Your task to perform on an android device: turn off javascript in the chrome app Image 0: 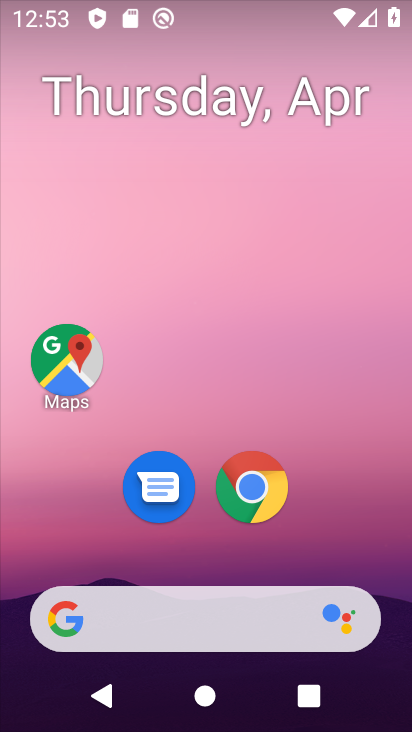
Step 0: drag from (338, 498) to (354, 133)
Your task to perform on an android device: turn off javascript in the chrome app Image 1: 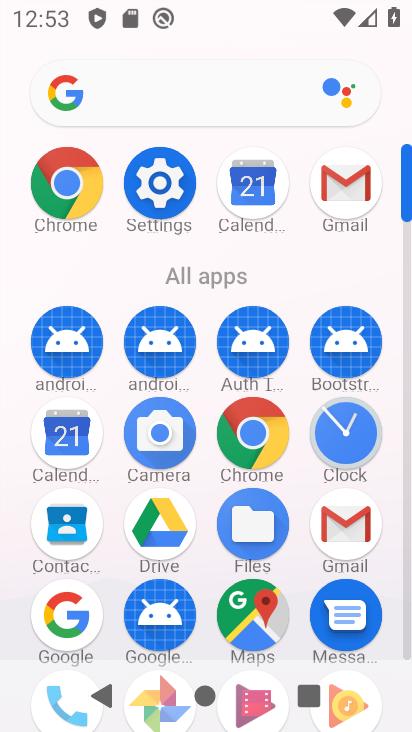
Step 1: click (59, 190)
Your task to perform on an android device: turn off javascript in the chrome app Image 2: 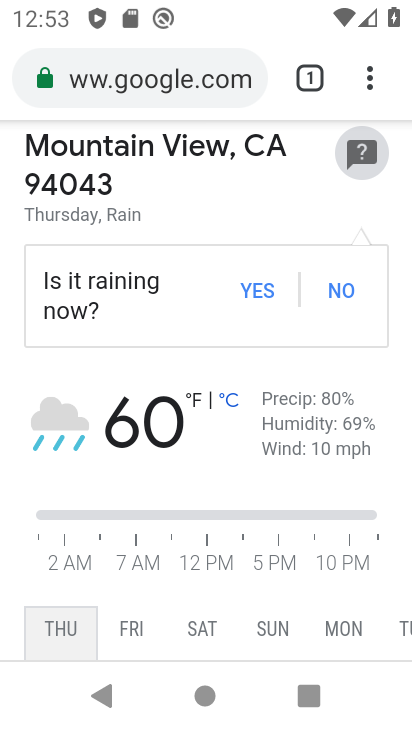
Step 2: drag from (386, 87) to (221, 563)
Your task to perform on an android device: turn off javascript in the chrome app Image 3: 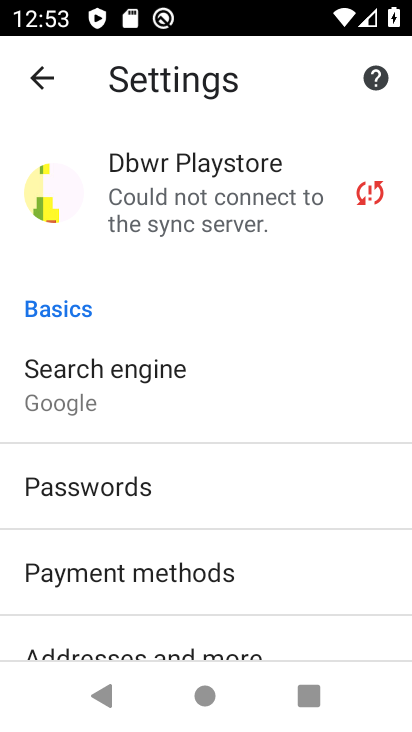
Step 3: drag from (304, 625) to (280, 396)
Your task to perform on an android device: turn off javascript in the chrome app Image 4: 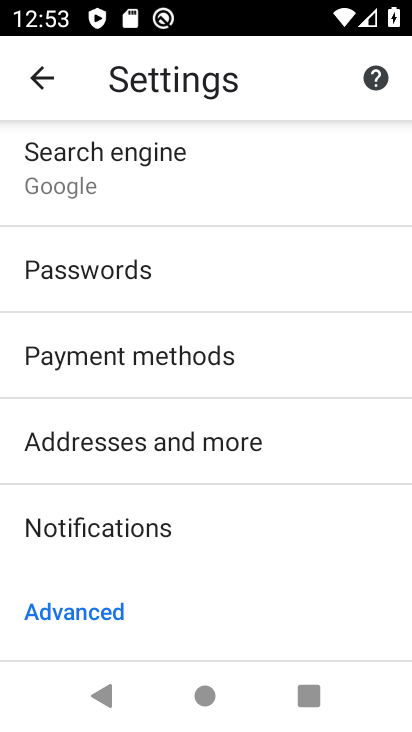
Step 4: drag from (276, 563) to (276, 335)
Your task to perform on an android device: turn off javascript in the chrome app Image 5: 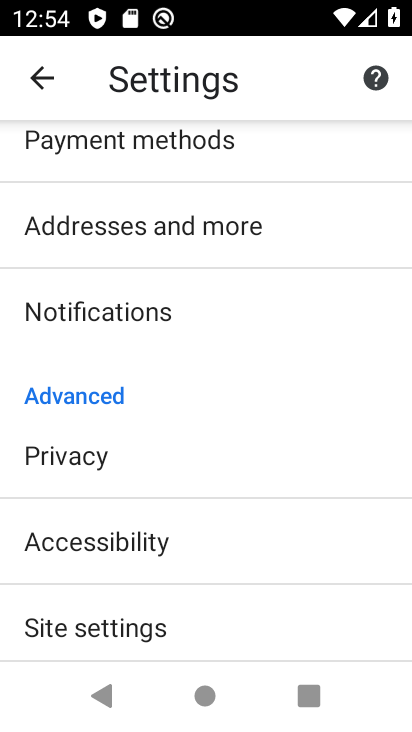
Step 5: drag from (232, 586) to (295, 341)
Your task to perform on an android device: turn off javascript in the chrome app Image 6: 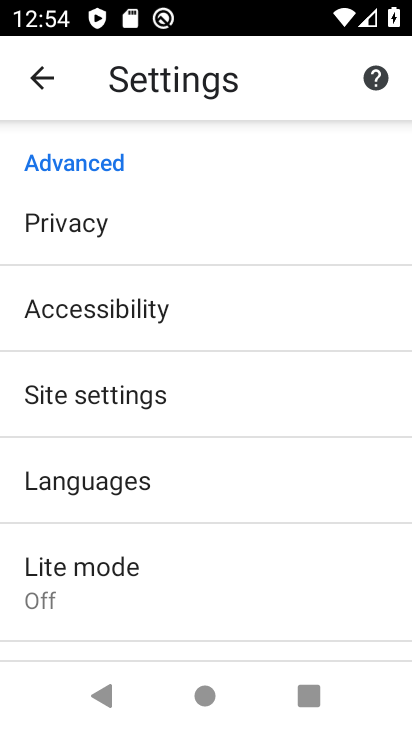
Step 6: drag from (273, 595) to (276, 479)
Your task to perform on an android device: turn off javascript in the chrome app Image 7: 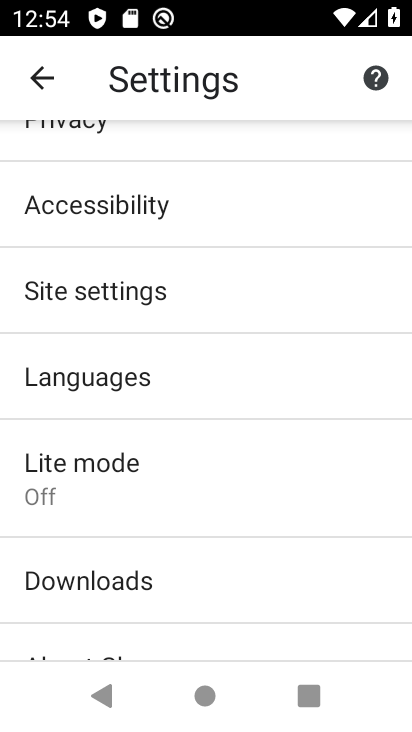
Step 7: click (181, 319)
Your task to perform on an android device: turn off javascript in the chrome app Image 8: 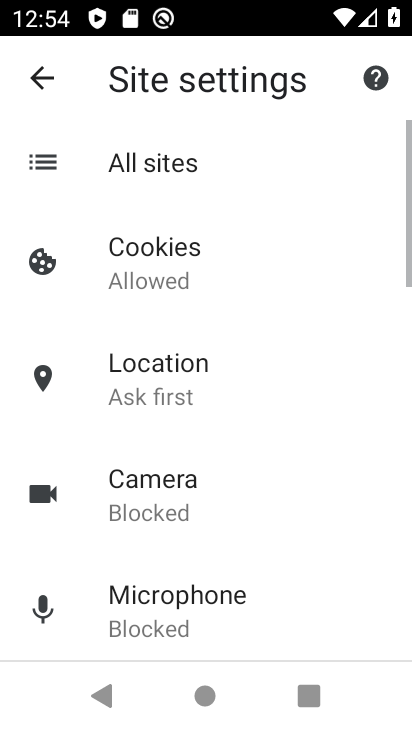
Step 8: drag from (269, 574) to (275, 346)
Your task to perform on an android device: turn off javascript in the chrome app Image 9: 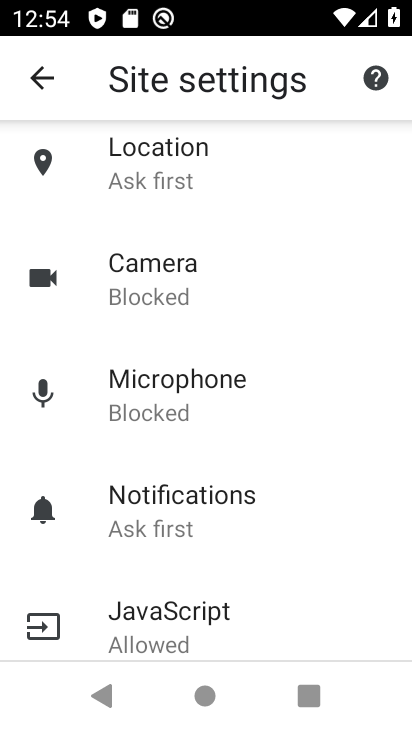
Step 9: click (219, 608)
Your task to perform on an android device: turn off javascript in the chrome app Image 10: 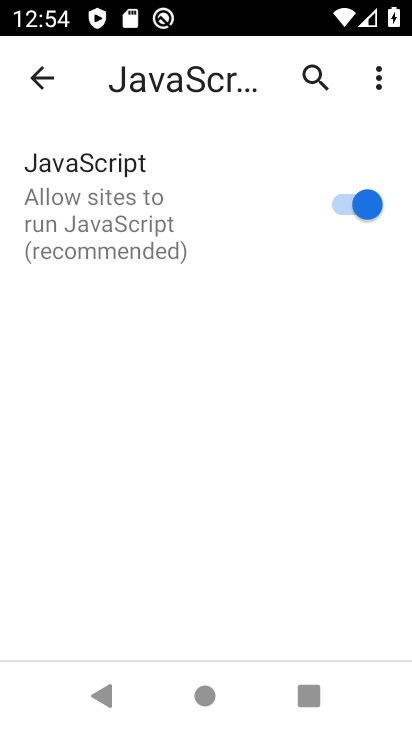
Step 10: click (349, 202)
Your task to perform on an android device: turn off javascript in the chrome app Image 11: 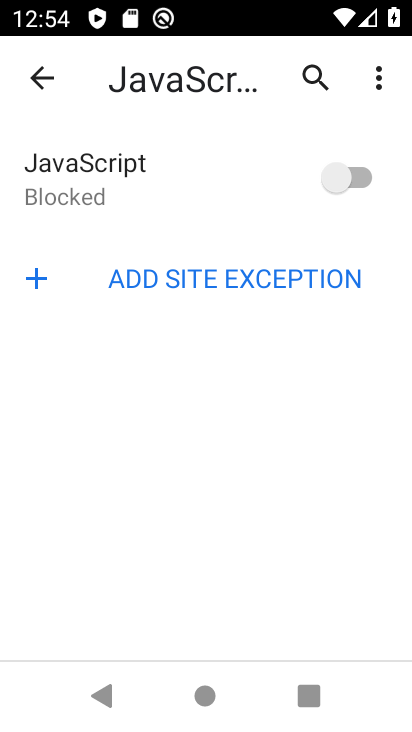
Step 11: task complete